Your task to perform on an android device: find which apps use the phone's location Image 0: 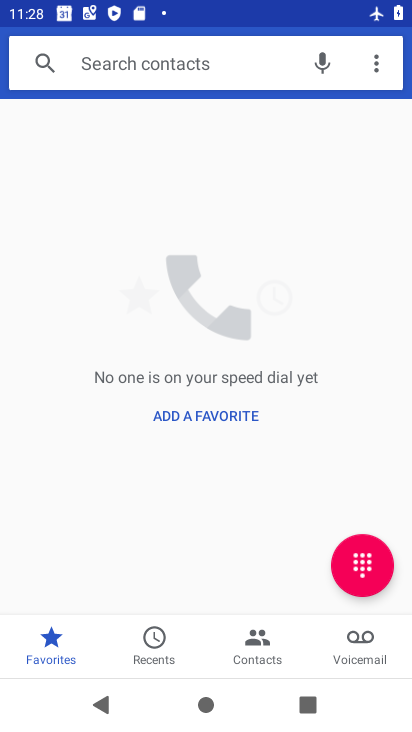
Step 0: press home button
Your task to perform on an android device: find which apps use the phone's location Image 1: 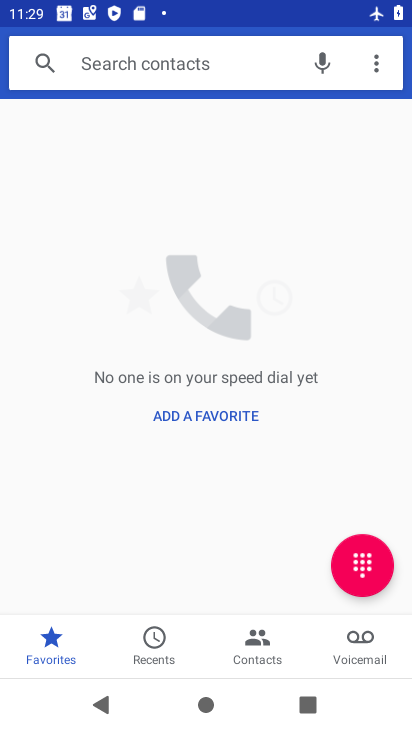
Step 1: press home button
Your task to perform on an android device: find which apps use the phone's location Image 2: 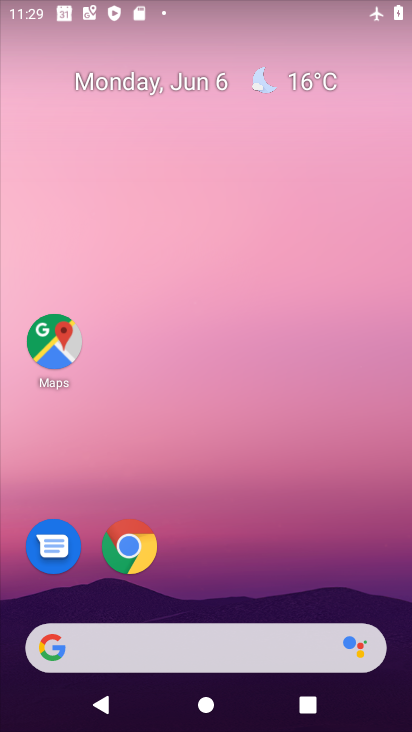
Step 2: drag from (328, 485) to (270, 134)
Your task to perform on an android device: find which apps use the phone's location Image 3: 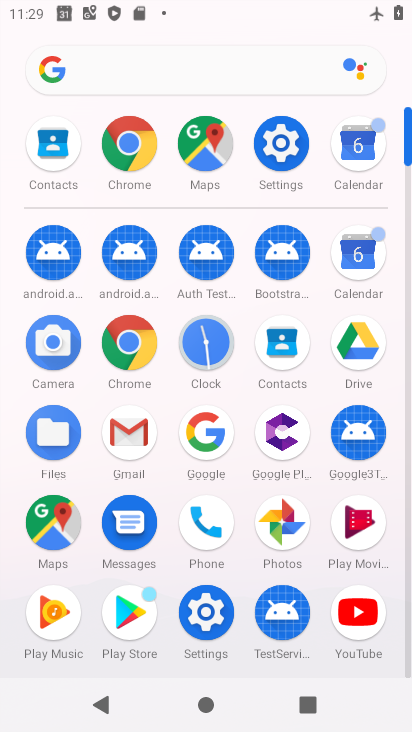
Step 3: click (290, 133)
Your task to perform on an android device: find which apps use the phone's location Image 4: 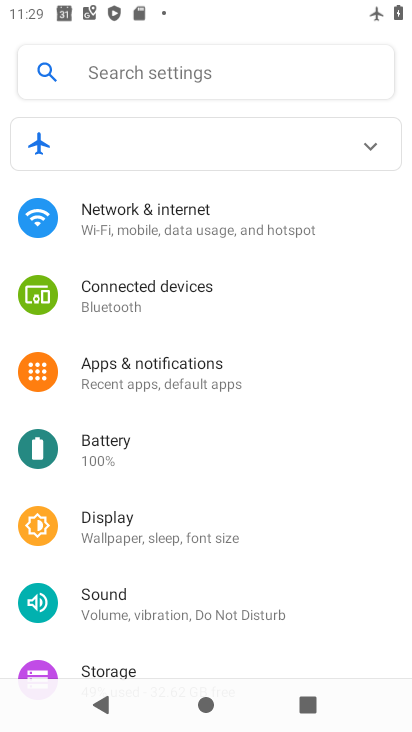
Step 4: drag from (225, 505) to (257, 188)
Your task to perform on an android device: find which apps use the phone's location Image 5: 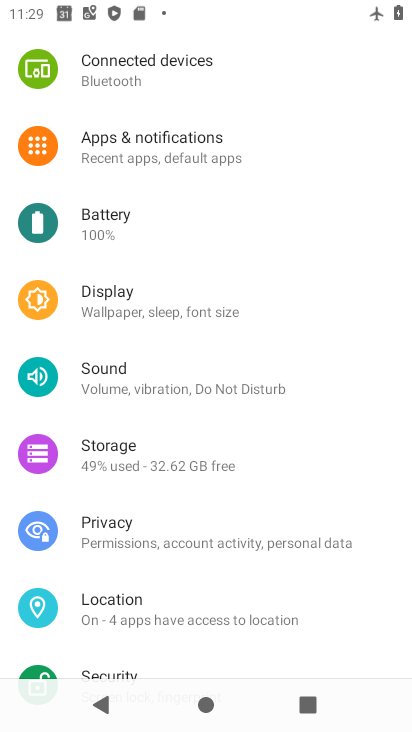
Step 5: click (144, 607)
Your task to perform on an android device: find which apps use the phone's location Image 6: 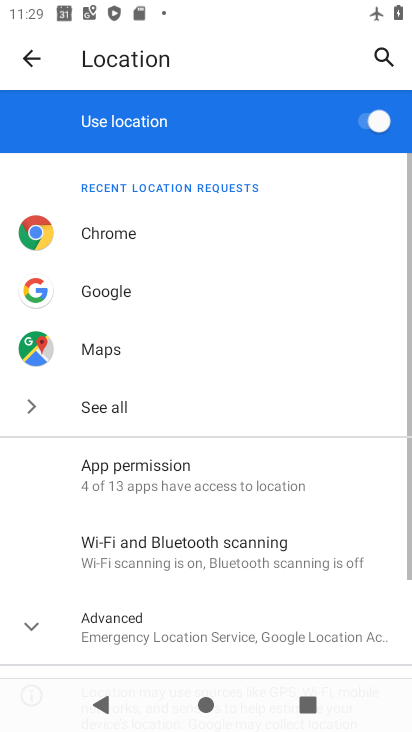
Step 6: click (170, 471)
Your task to perform on an android device: find which apps use the phone's location Image 7: 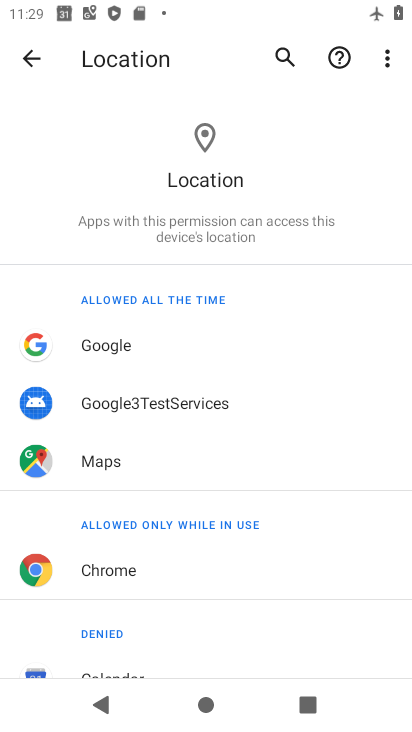
Step 7: task complete